Your task to perform on an android device: Open Maps and search for coffee Image 0: 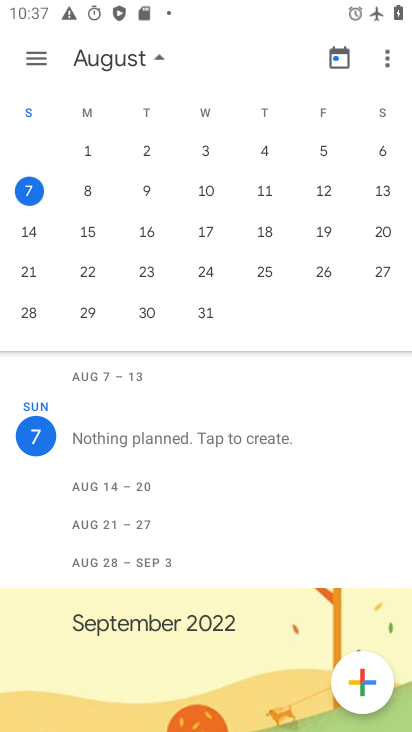
Step 0: press home button
Your task to perform on an android device: Open Maps and search for coffee Image 1: 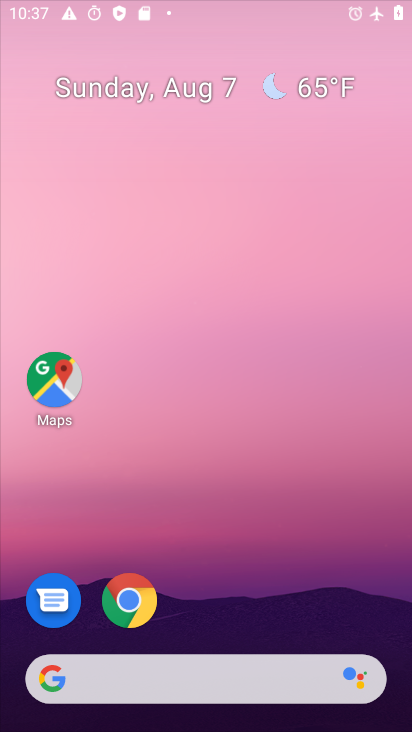
Step 1: drag from (242, 420) to (280, 0)
Your task to perform on an android device: Open Maps and search for coffee Image 2: 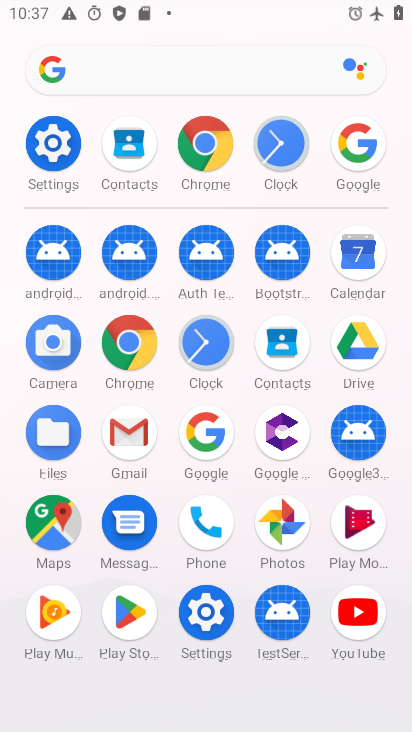
Step 2: click (62, 516)
Your task to perform on an android device: Open Maps and search for coffee Image 3: 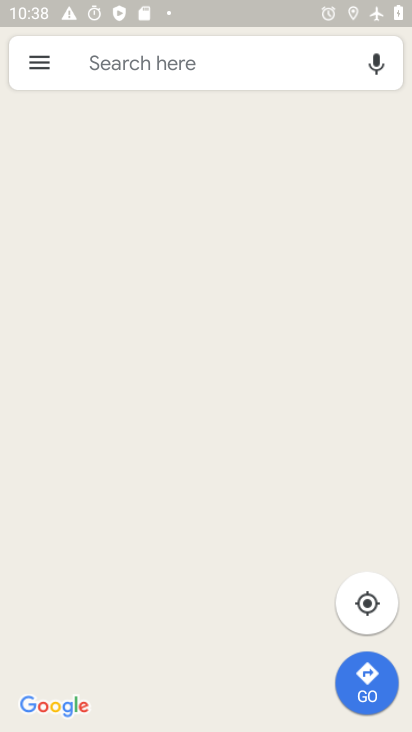
Step 3: click (152, 67)
Your task to perform on an android device: Open Maps and search for coffee Image 4: 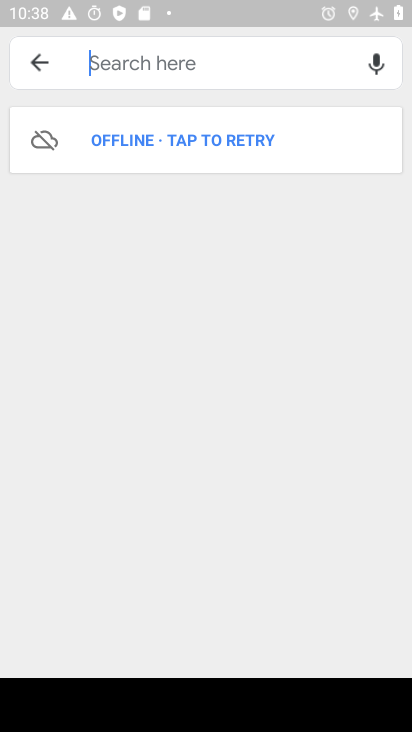
Step 4: type "coffee"
Your task to perform on an android device: Open Maps and search for coffee Image 5: 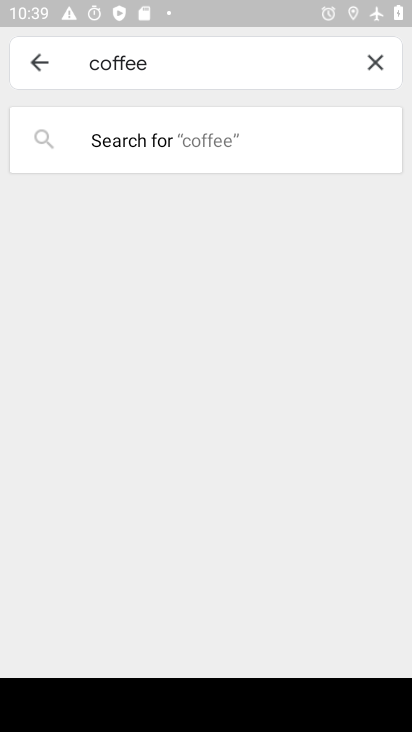
Step 5: task complete